Your task to perform on an android device: Go to Maps Image 0: 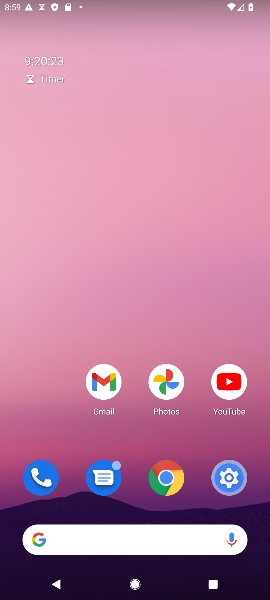
Step 0: drag from (195, 350) to (109, 88)
Your task to perform on an android device: Go to Maps Image 1: 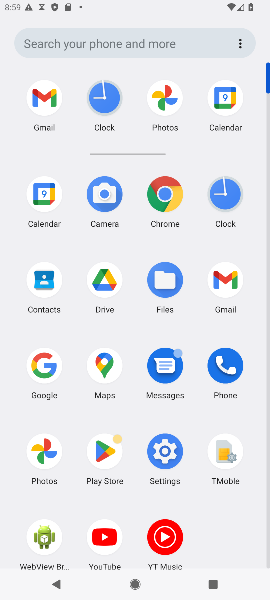
Step 1: click (104, 357)
Your task to perform on an android device: Go to Maps Image 2: 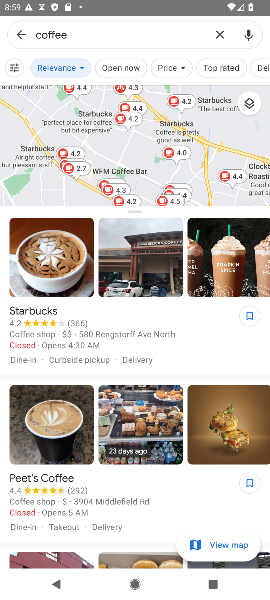
Step 2: task complete